Your task to perform on an android device: delete browsing data in the chrome app Image 0: 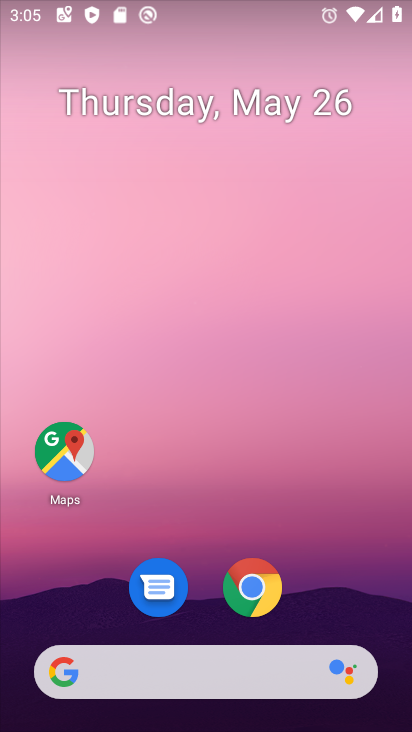
Step 0: drag from (354, 604) to (356, 184)
Your task to perform on an android device: delete browsing data in the chrome app Image 1: 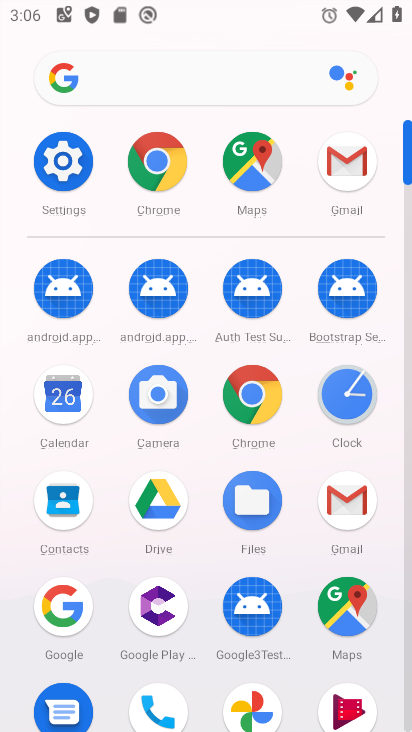
Step 1: click (166, 175)
Your task to perform on an android device: delete browsing data in the chrome app Image 2: 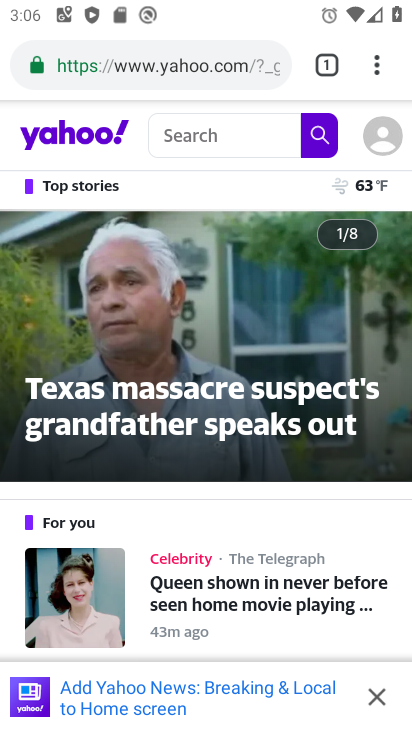
Step 2: click (376, 72)
Your task to perform on an android device: delete browsing data in the chrome app Image 3: 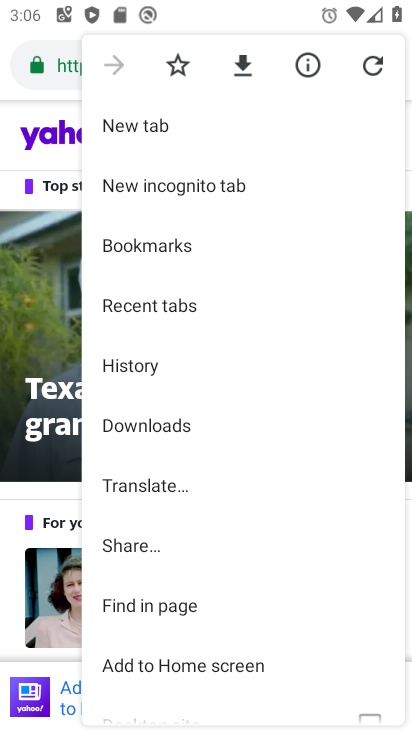
Step 3: drag from (296, 546) to (316, 397)
Your task to perform on an android device: delete browsing data in the chrome app Image 4: 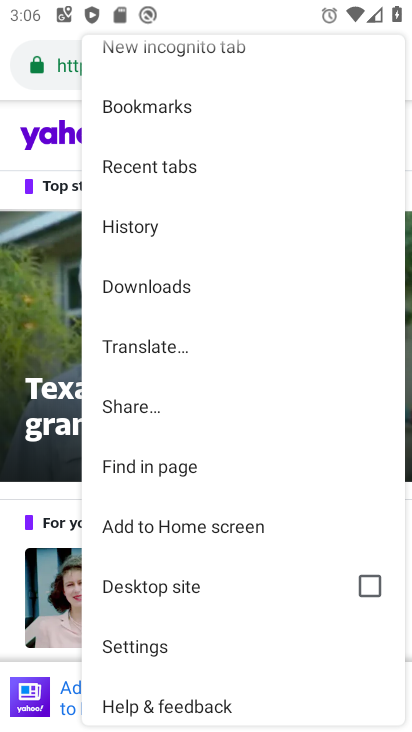
Step 4: click (154, 647)
Your task to perform on an android device: delete browsing data in the chrome app Image 5: 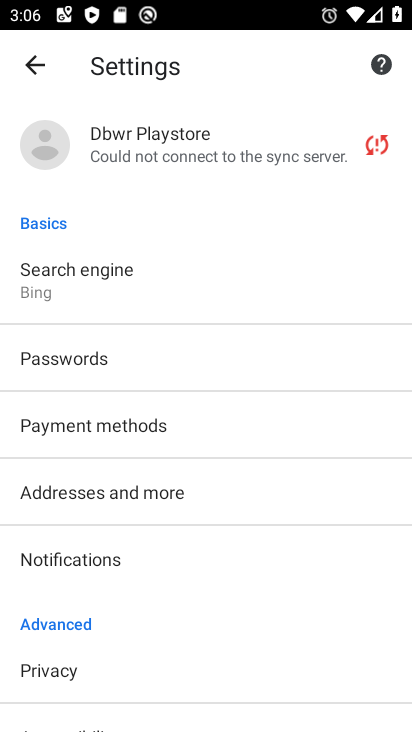
Step 5: drag from (305, 615) to (346, 376)
Your task to perform on an android device: delete browsing data in the chrome app Image 6: 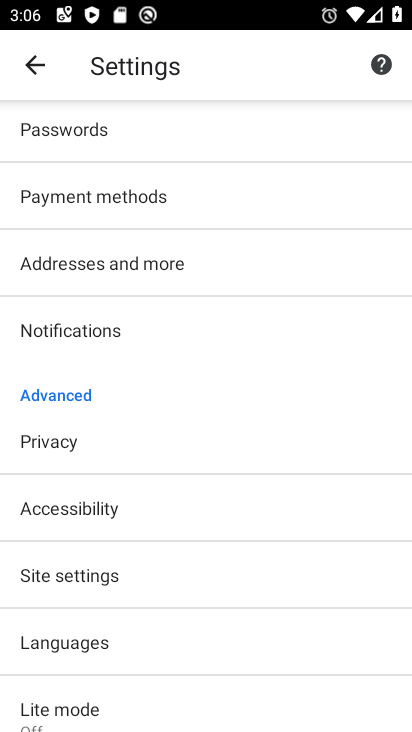
Step 6: drag from (315, 606) to (287, 412)
Your task to perform on an android device: delete browsing data in the chrome app Image 7: 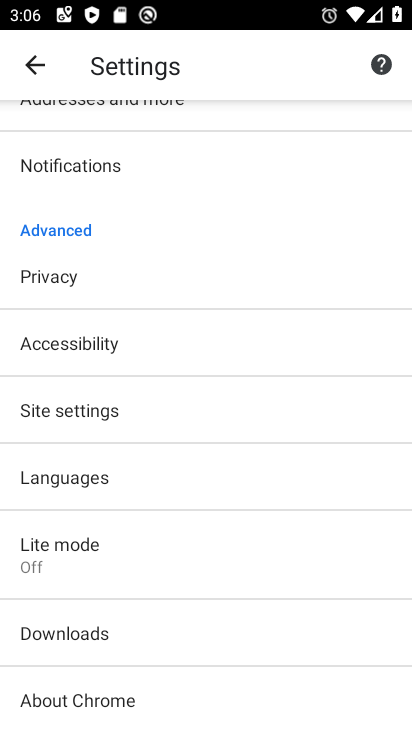
Step 7: click (128, 268)
Your task to perform on an android device: delete browsing data in the chrome app Image 8: 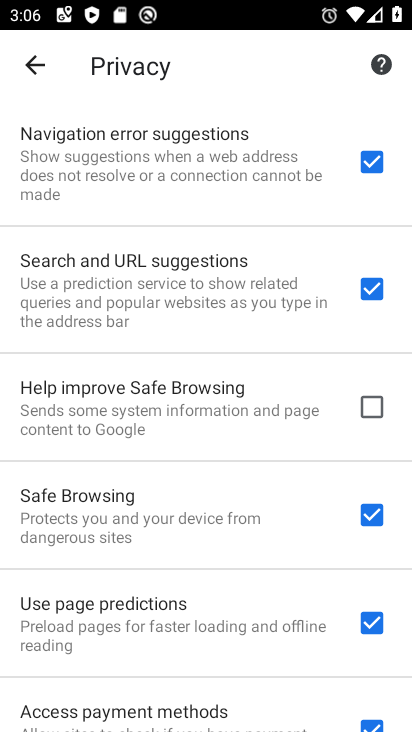
Step 8: drag from (202, 481) to (224, 381)
Your task to perform on an android device: delete browsing data in the chrome app Image 9: 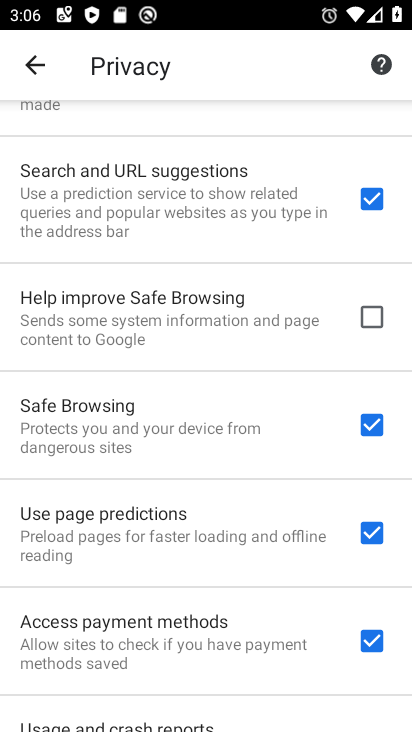
Step 9: drag from (260, 608) to (273, 407)
Your task to perform on an android device: delete browsing data in the chrome app Image 10: 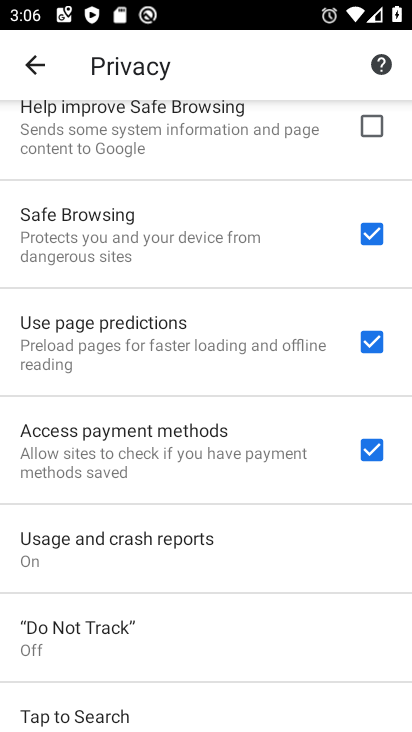
Step 10: drag from (286, 614) to (269, 407)
Your task to perform on an android device: delete browsing data in the chrome app Image 11: 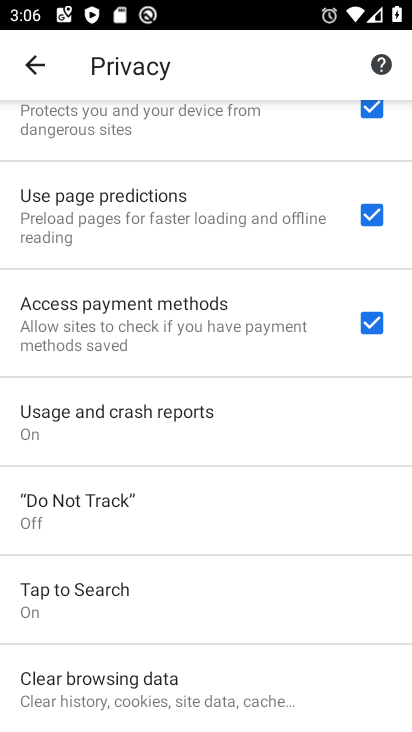
Step 11: click (225, 699)
Your task to perform on an android device: delete browsing data in the chrome app Image 12: 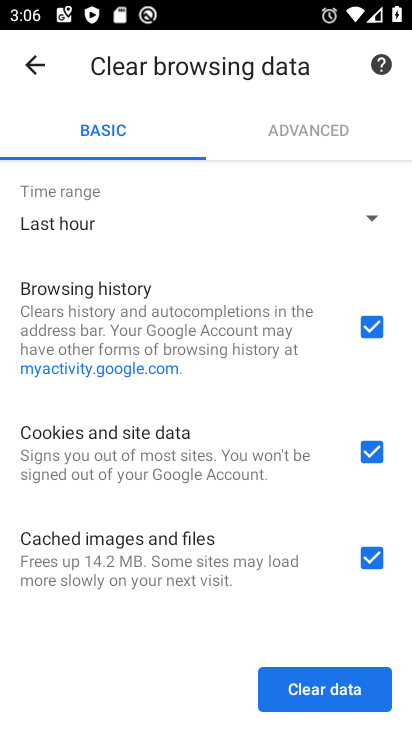
Step 12: click (315, 687)
Your task to perform on an android device: delete browsing data in the chrome app Image 13: 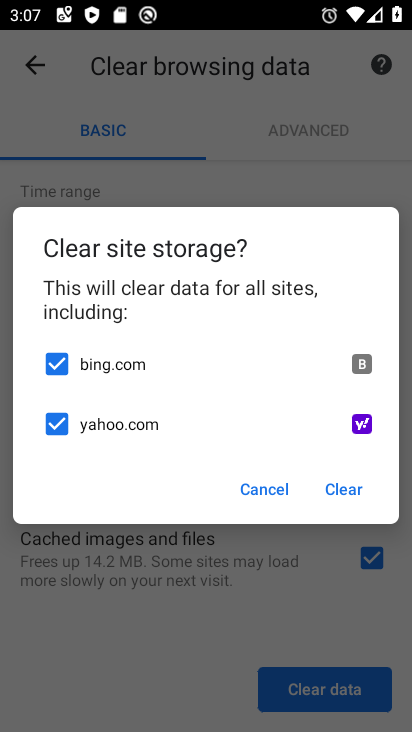
Step 13: click (337, 497)
Your task to perform on an android device: delete browsing data in the chrome app Image 14: 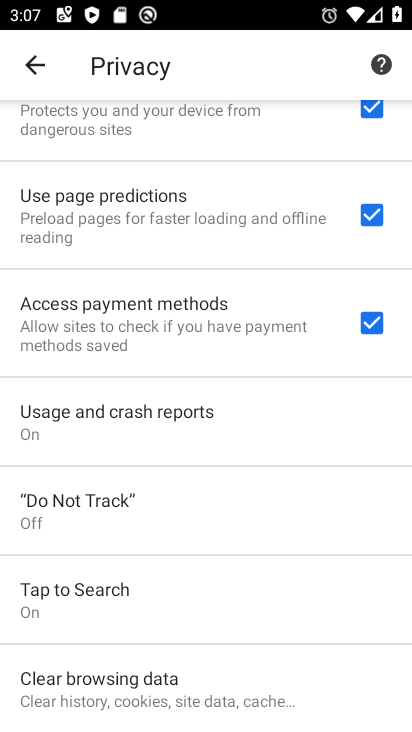
Step 14: task complete